Your task to perform on an android device: open a bookmark in the chrome app Image 0: 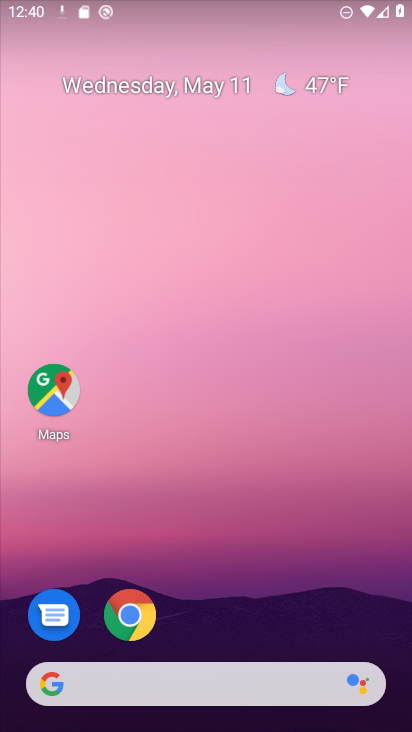
Step 0: press home button
Your task to perform on an android device: open a bookmark in the chrome app Image 1: 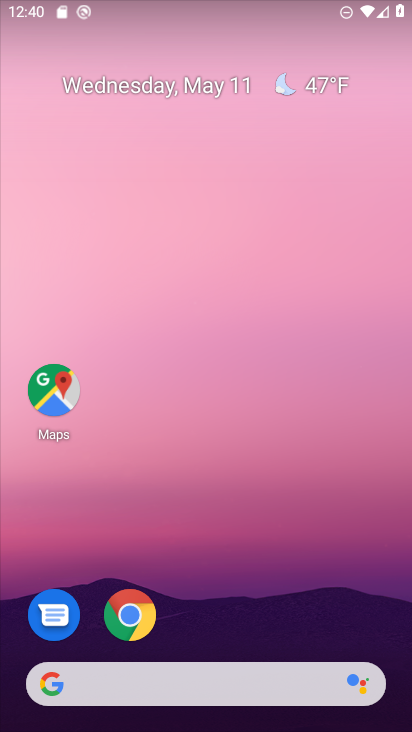
Step 1: drag from (280, 599) to (233, 123)
Your task to perform on an android device: open a bookmark in the chrome app Image 2: 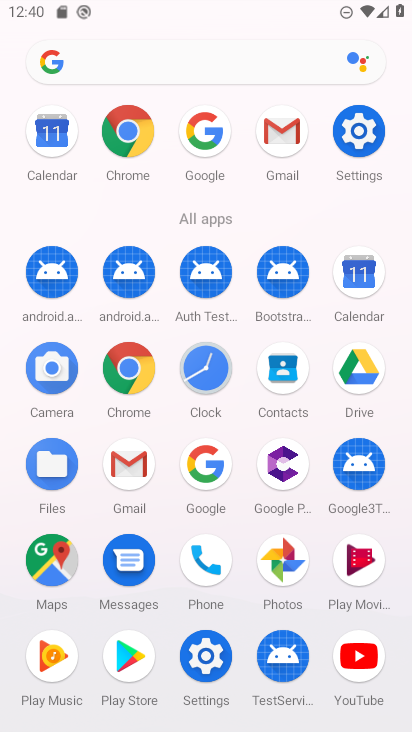
Step 2: click (133, 142)
Your task to perform on an android device: open a bookmark in the chrome app Image 3: 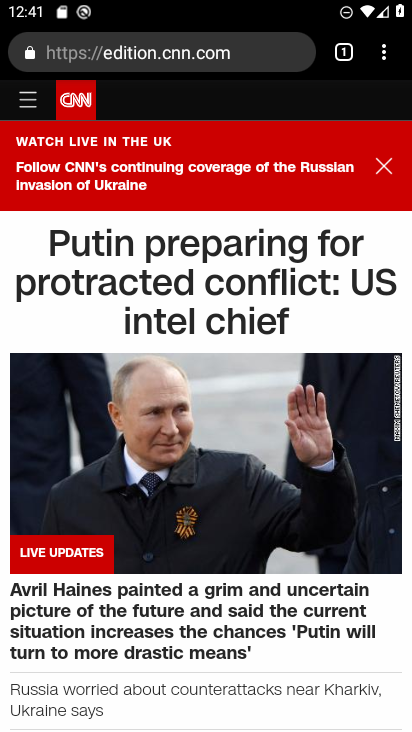
Step 3: drag from (383, 45) to (227, 204)
Your task to perform on an android device: open a bookmark in the chrome app Image 4: 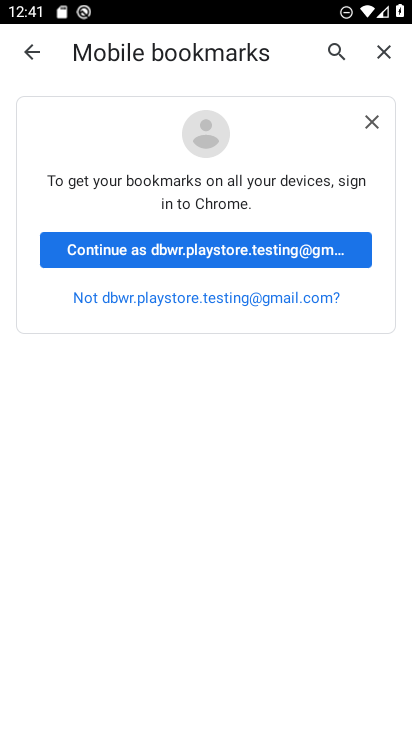
Step 4: click (203, 237)
Your task to perform on an android device: open a bookmark in the chrome app Image 5: 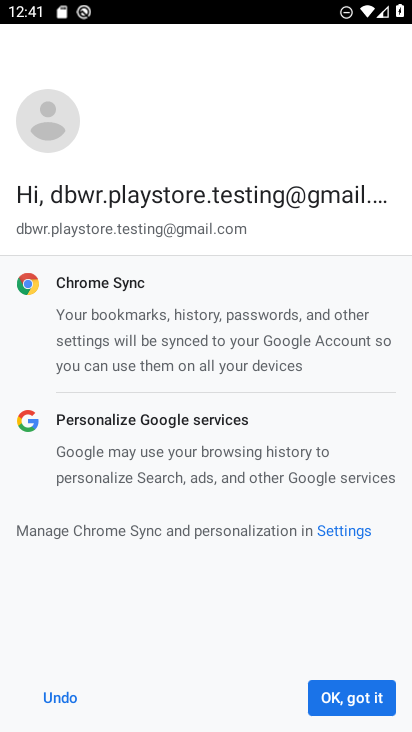
Step 5: click (351, 706)
Your task to perform on an android device: open a bookmark in the chrome app Image 6: 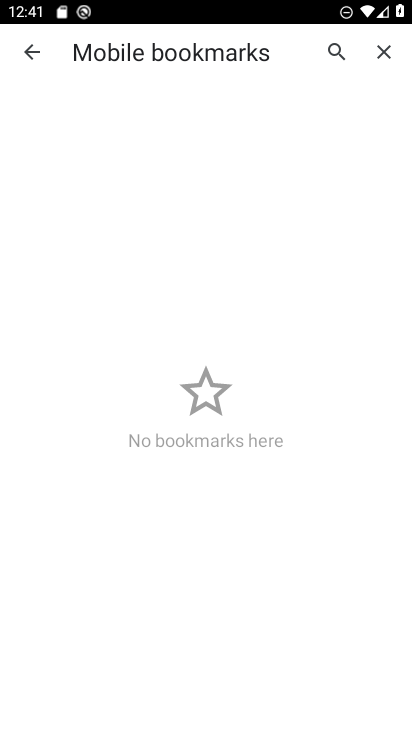
Step 6: task complete